Your task to perform on an android device: Open my contact list Image 0: 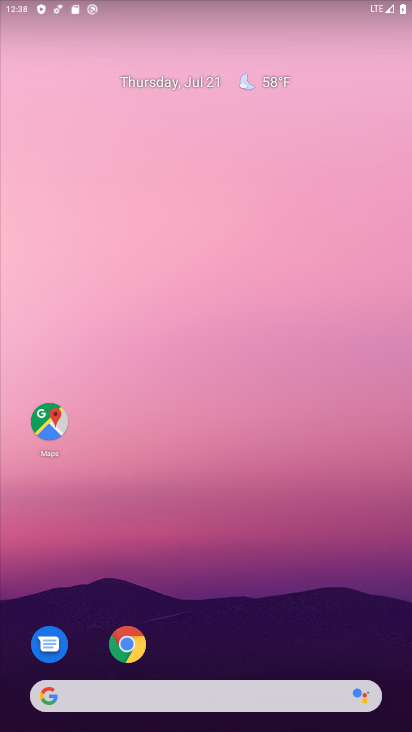
Step 0: drag from (362, 596) to (340, 164)
Your task to perform on an android device: Open my contact list Image 1: 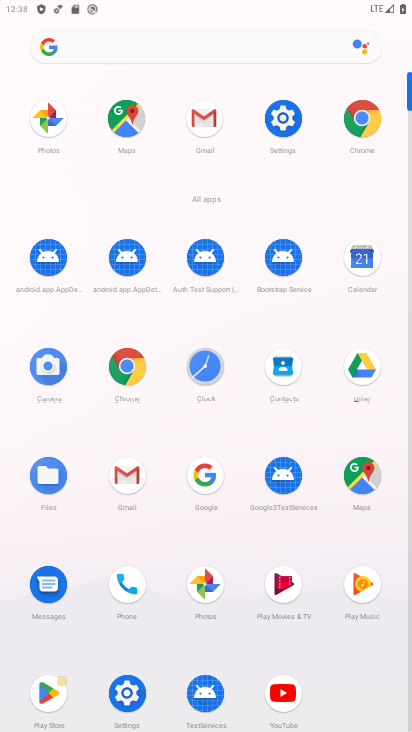
Step 1: click (286, 386)
Your task to perform on an android device: Open my contact list Image 2: 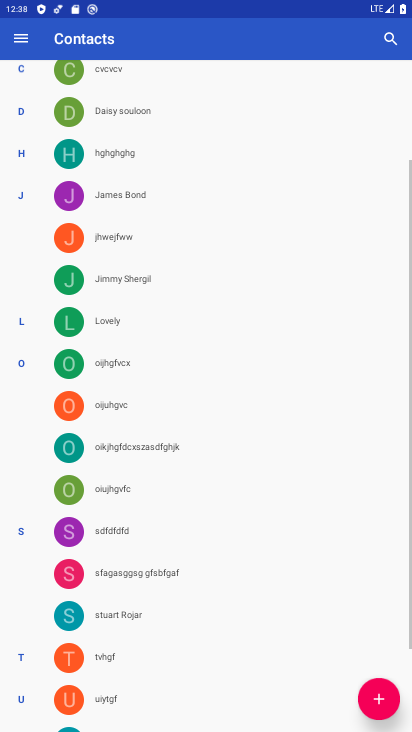
Step 2: task complete